Your task to perform on an android device: find which apps use the phone's location Image 0: 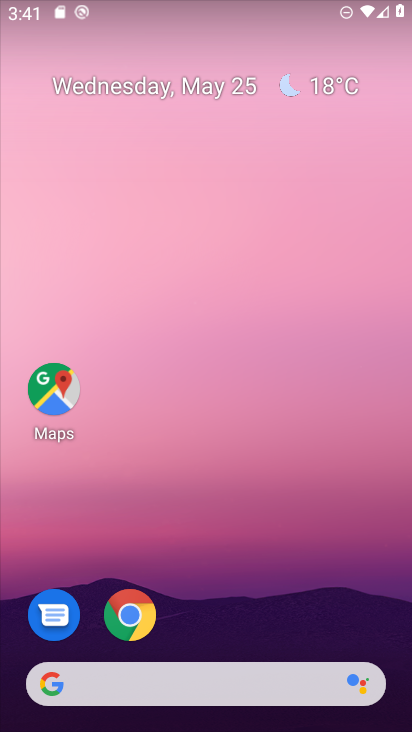
Step 0: drag from (243, 566) to (221, 33)
Your task to perform on an android device: find which apps use the phone's location Image 1: 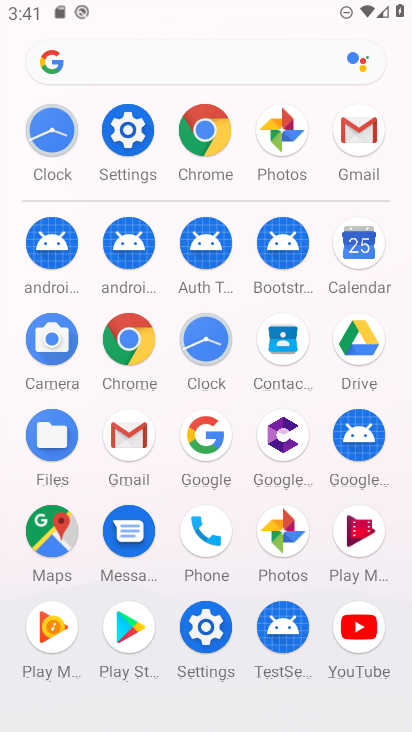
Step 1: click (135, 124)
Your task to perform on an android device: find which apps use the phone's location Image 2: 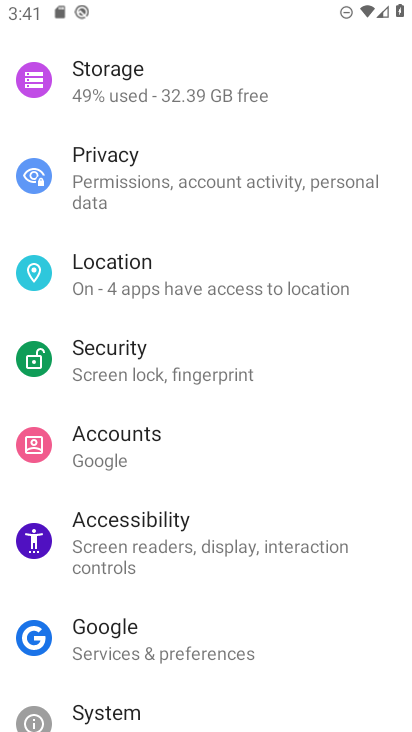
Step 2: click (161, 275)
Your task to perform on an android device: find which apps use the phone's location Image 3: 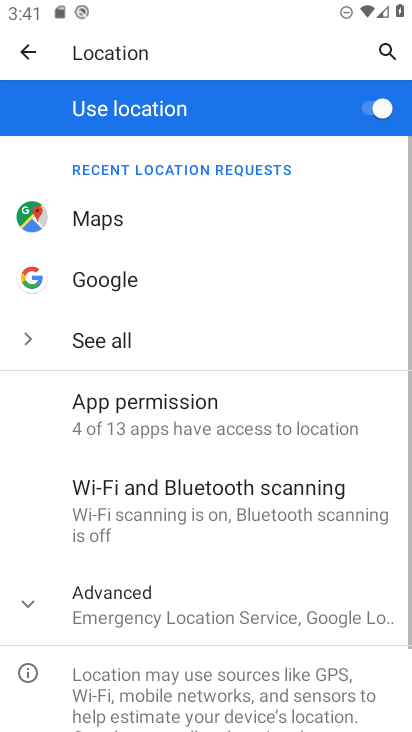
Step 3: click (158, 405)
Your task to perform on an android device: find which apps use the phone's location Image 4: 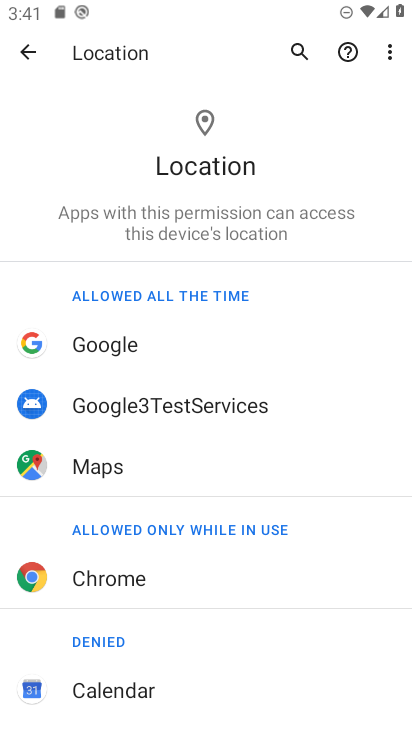
Step 4: task complete